Your task to perform on an android device: turn on location history Image 0: 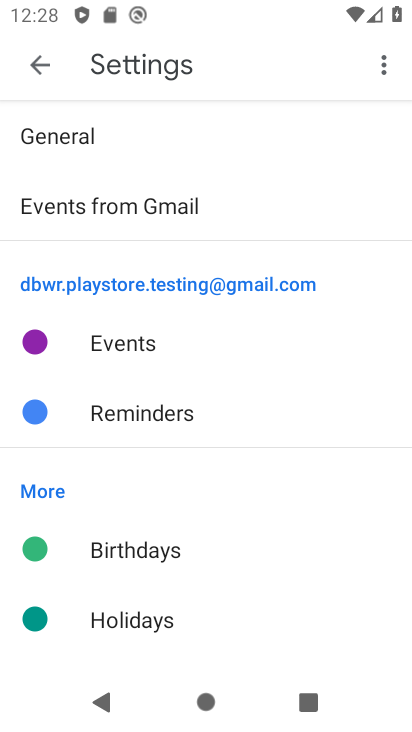
Step 0: press home button
Your task to perform on an android device: turn on location history Image 1: 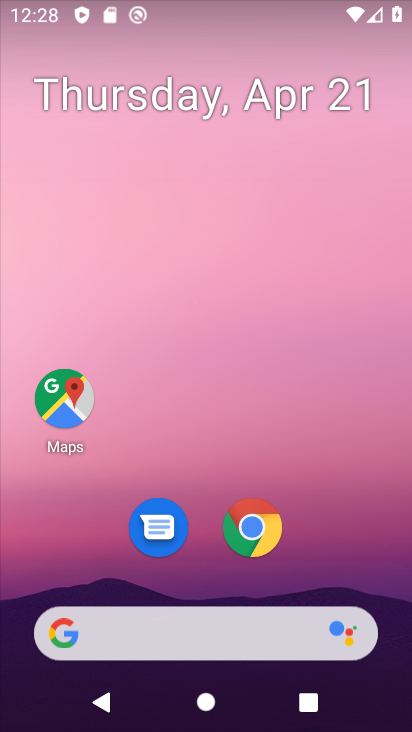
Step 1: drag from (346, 490) to (361, 143)
Your task to perform on an android device: turn on location history Image 2: 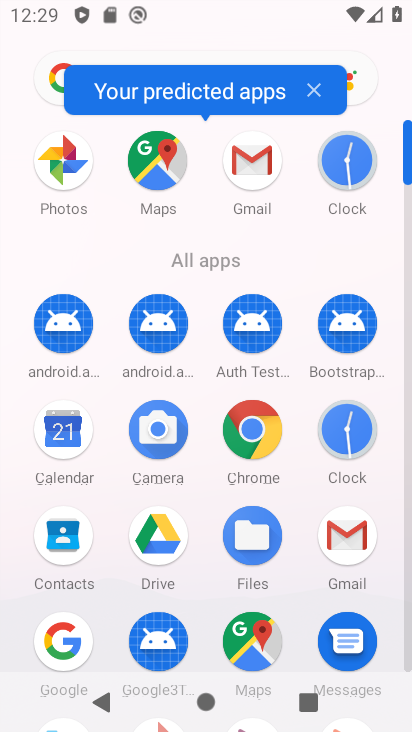
Step 2: drag from (197, 584) to (205, 249)
Your task to perform on an android device: turn on location history Image 3: 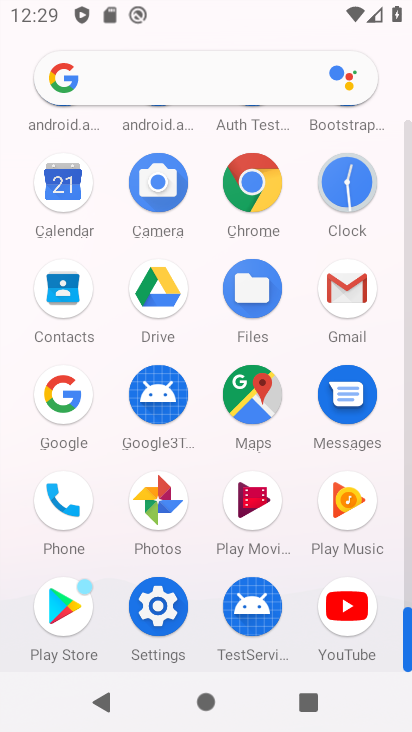
Step 3: click (177, 610)
Your task to perform on an android device: turn on location history Image 4: 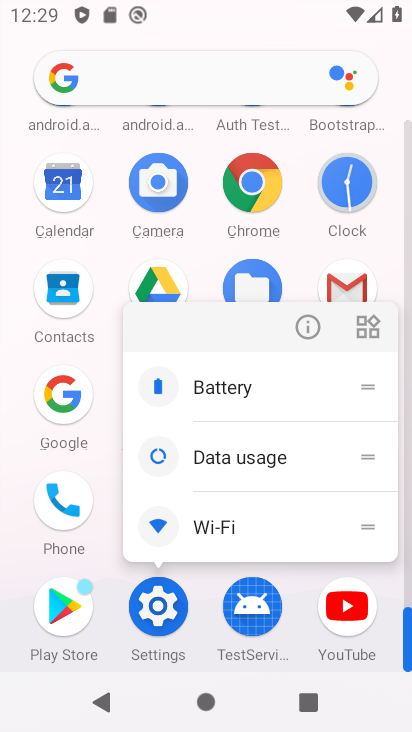
Step 4: click (147, 610)
Your task to perform on an android device: turn on location history Image 5: 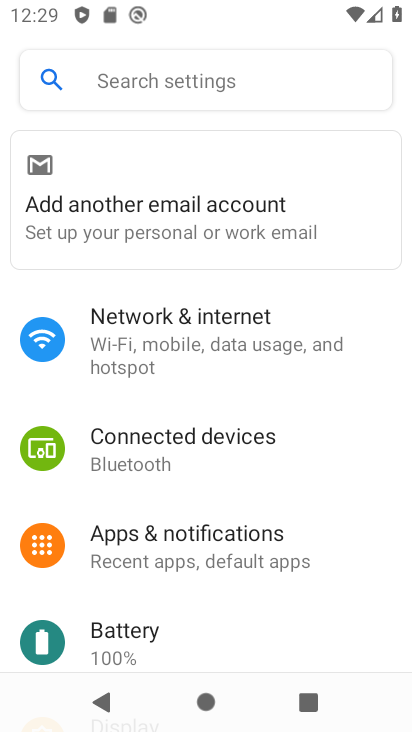
Step 5: drag from (358, 617) to (388, 291)
Your task to perform on an android device: turn on location history Image 6: 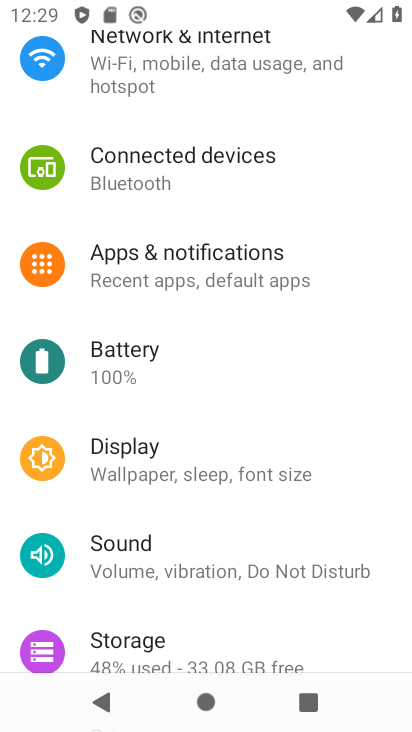
Step 6: drag from (369, 612) to (354, 254)
Your task to perform on an android device: turn on location history Image 7: 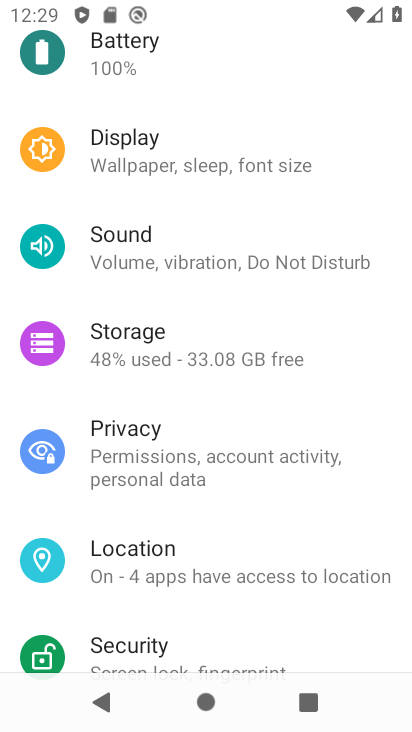
Step 7: click (258, 566)
Your task to perform on an android device: turn on location history Image 8: 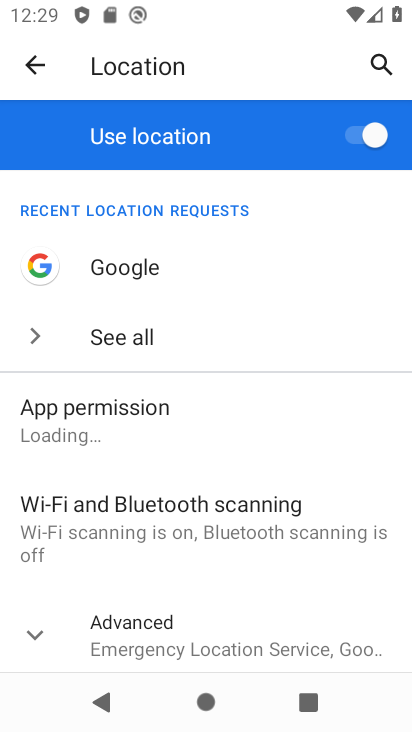
Step 8: drag from (261, 568) to (280, 362)
Your task to perform on an android device: turn on location history Image 9: 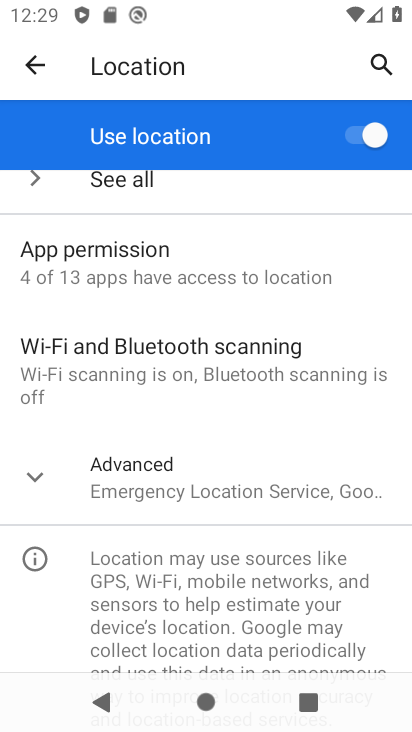
Step 9: click (288, 512)
Your task to perform on an android device: turn on location history Image 10: 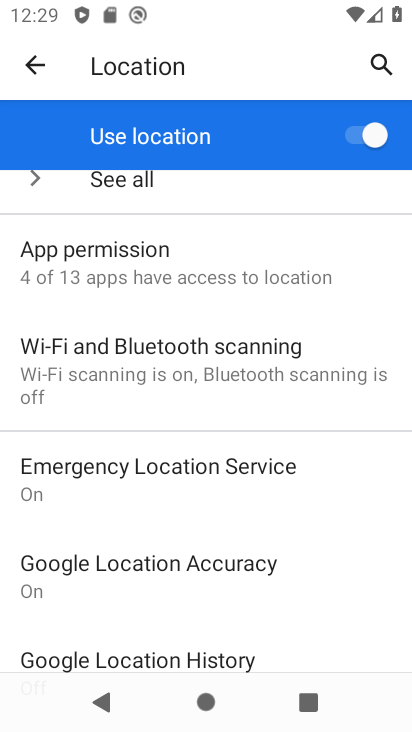
Step 10: drag from (344, 580) to (362, 369)
Your task to perform on an android device: turn on location history Image 11: 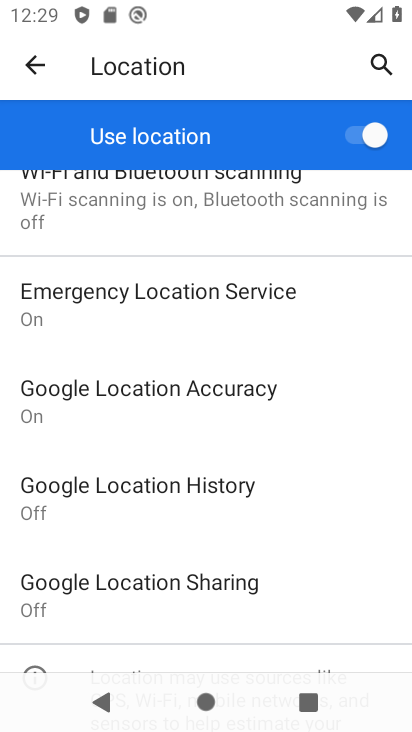
Step 11: click (229, 488)
Your task to perform on an android device: turn on location history Image 12: 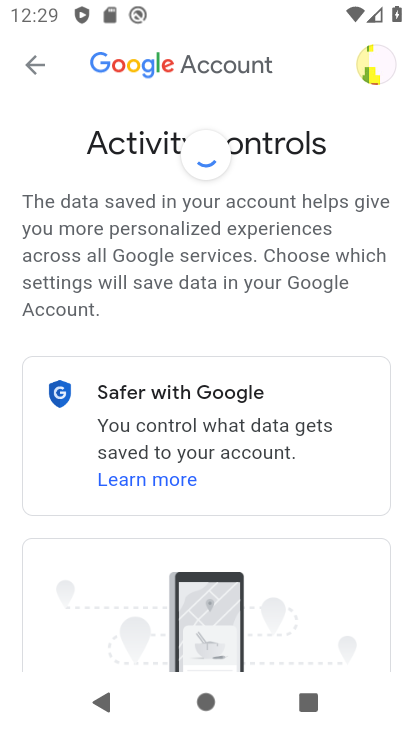
Step 12: drag from (309, 595) to (326, 242)
Your task to perform on an android device: turn on location history Image 13: 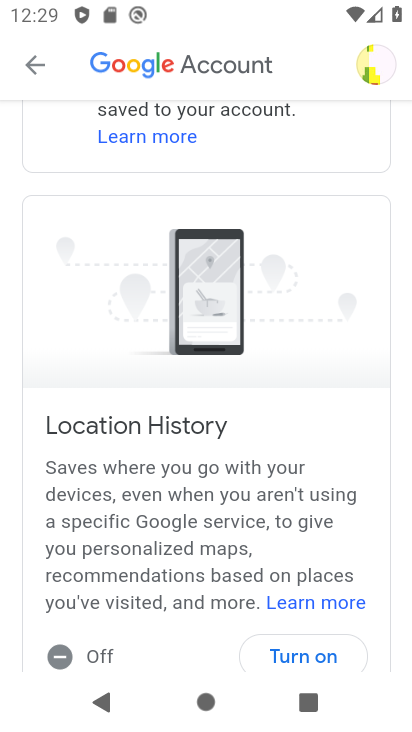
Step 13: drag from (213, 610) to (228, 297)
Your task to perform on an android device: turn on location history Image 14: 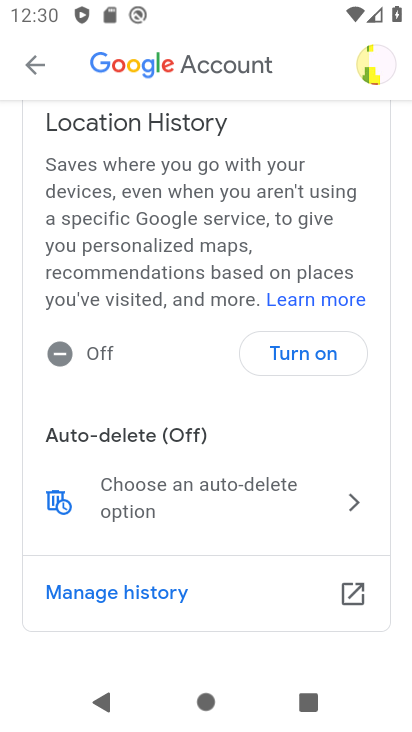
Step 14: click (311, 345)
Your task to perform on an android device: turn on location history Image 15: 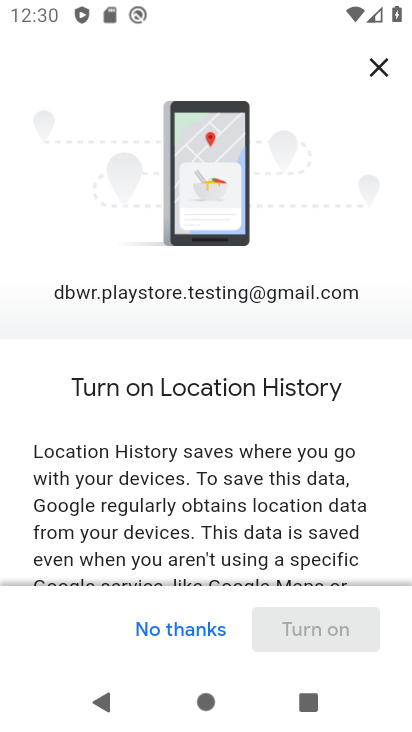
Step 15: drag from (254, 465) to (267, 271)
Your task to perform on an android device: turn on location history Image 16: 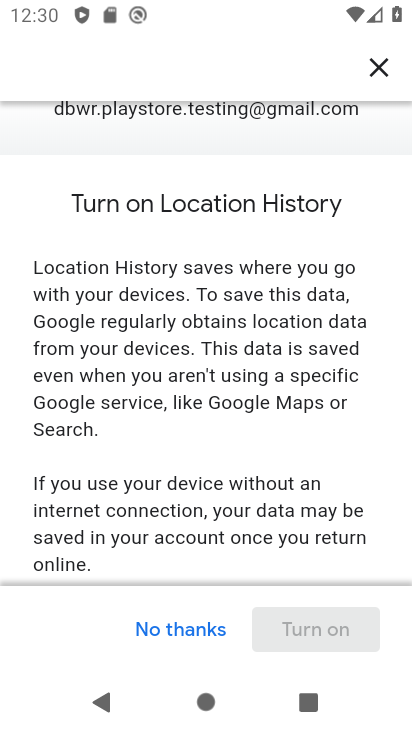
Step 16: drag from (239, 509) to (242, 310)
Your task to perform on an android device: turn on location history Image 17: 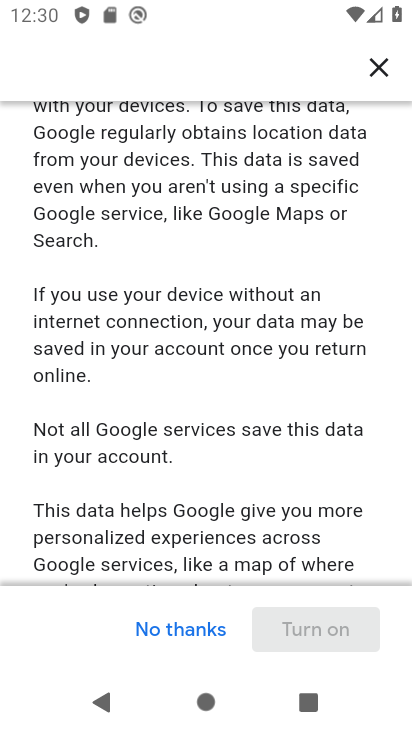
Step 17: drag from (230, 512) to (232, 365)
Your task to perform on an android device: turn on location history Image 18: 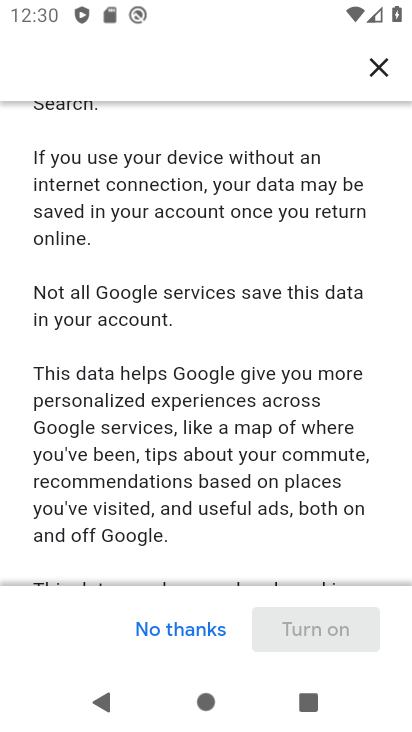
Step 18: drag from (253, 501) to (253, 250)
Your task to perform on an android device: turn on location history Image 19: 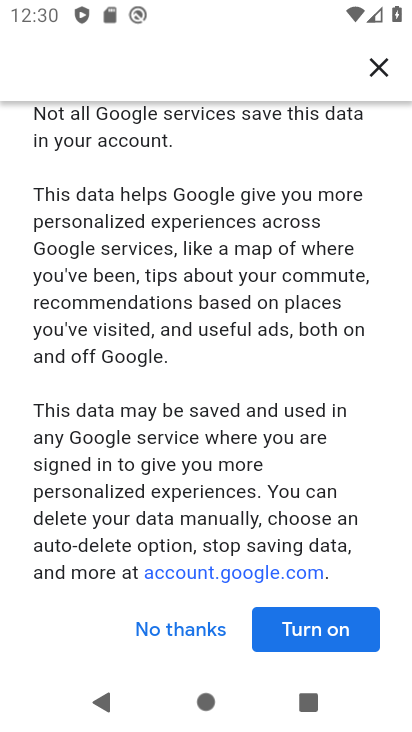
Step 19: click (322, 621)
Your task to perform on an android device: turn on location history Image 20: 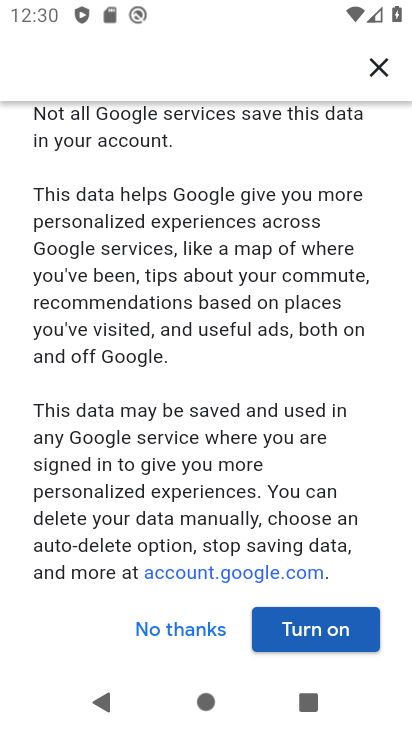
Step 20: click (335, 646)
Your task to perform on an android device: turn on location history Image 21: 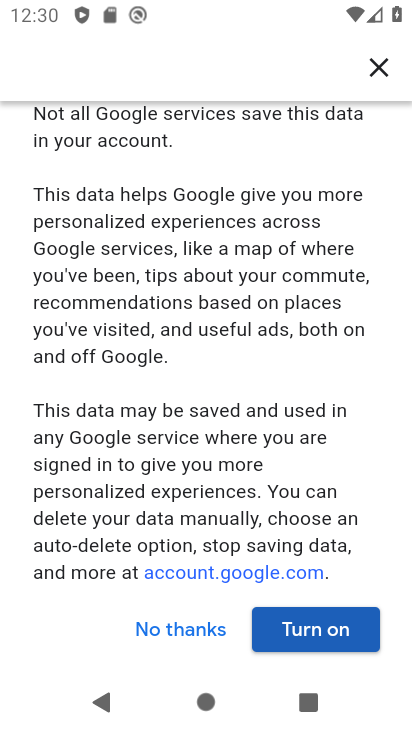
Step 21: click (304, 629)
Your task to perform on an android device: turn on location history Image 22: 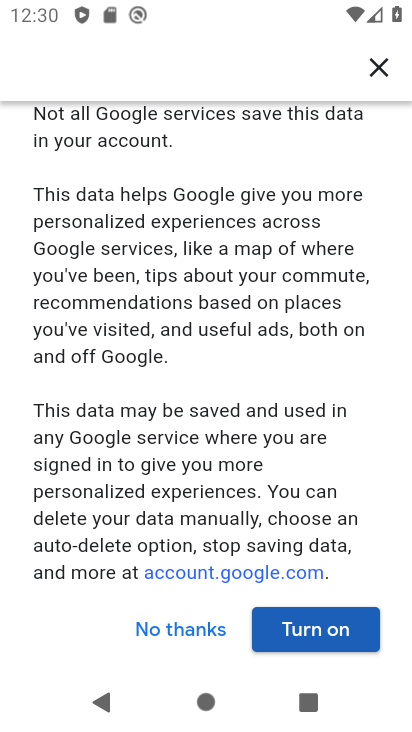
Step 22: click (338, 627)
Your task to perform on an android device: turn on location history Image 23: 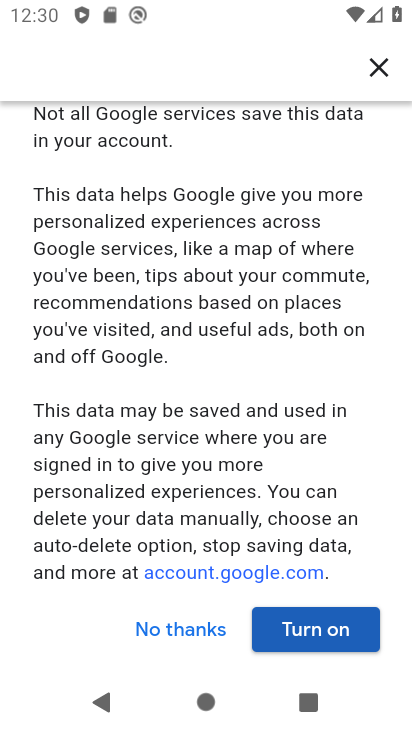
Step 23: click (315, 634)
Your task to perform on an android device: turn on location history Image 24: 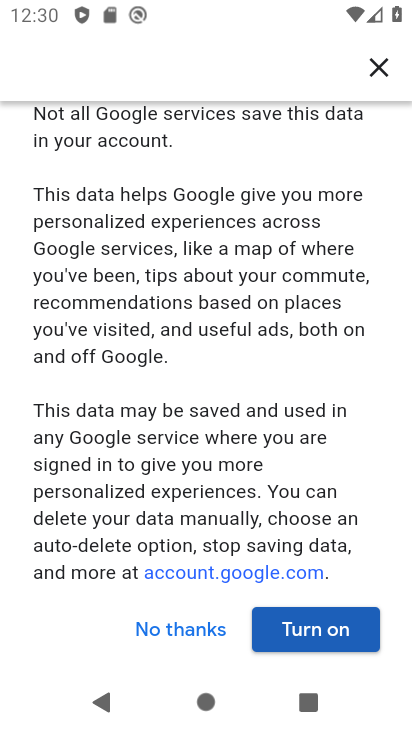
Step 24: click (313, 630)
Your task to perform on an android device: turn on location history Image 25: 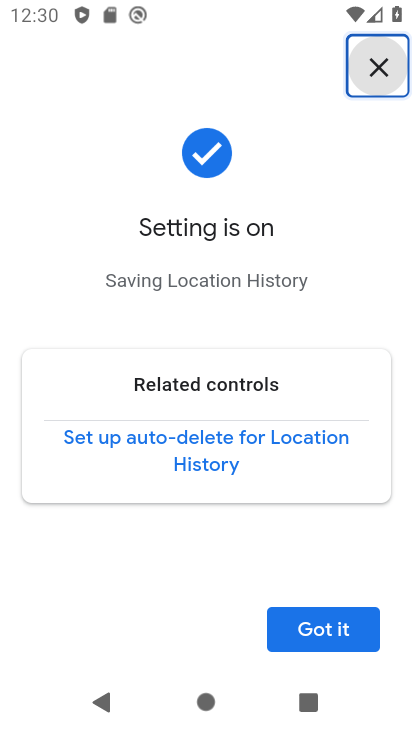
Step 25: task complete